Your task to perform on an android device: change the clock display to analog Image 0: 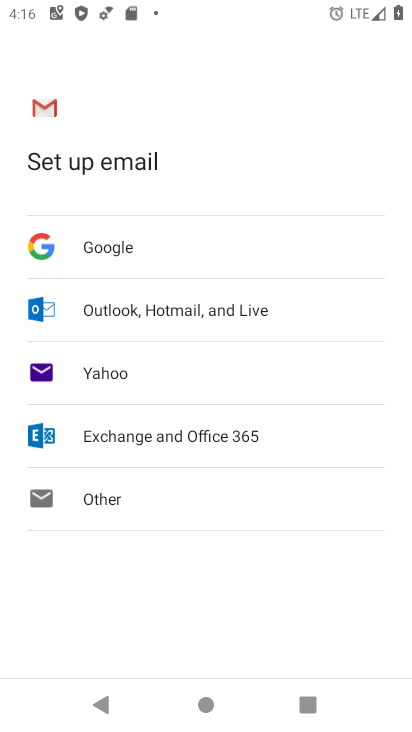
Step 0: press home button
Your task to perform on an android device: change the clock display to analog Image 1: 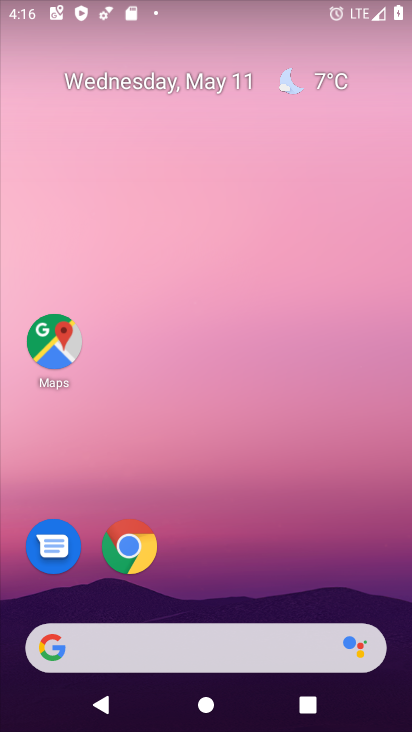
Step 1: drag from (311, 645) to (395, 258)
Your task to perform on an android device: change the clock display to analog Image 2: 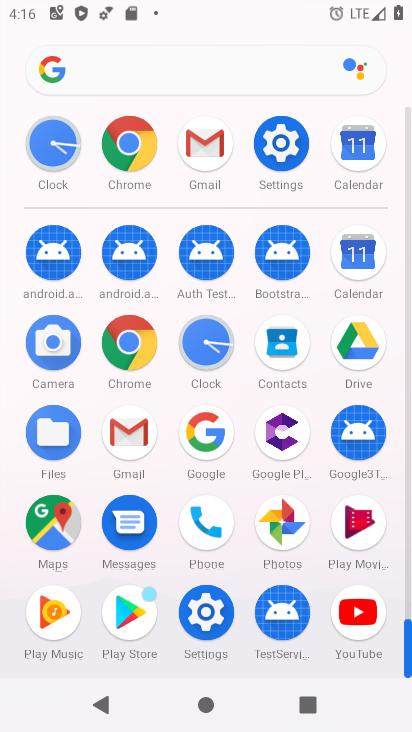
Step 2: click (287, 157)
Your task to perform on an android device: change the clock display to analog Image 3: 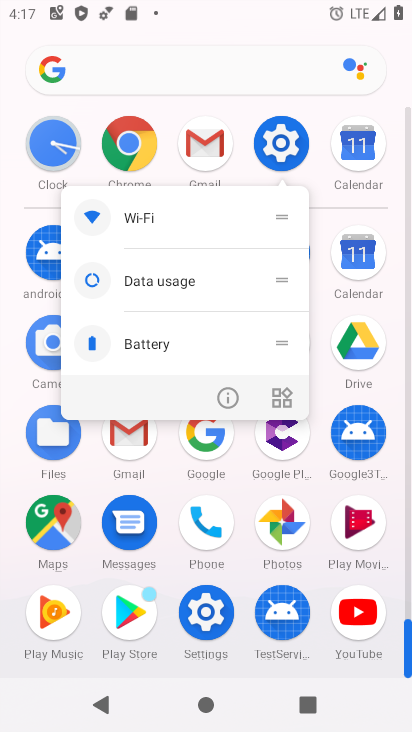
Step 3: click (291, 147)
Your task to perform on an android device: change the clock display to analog Image 4: 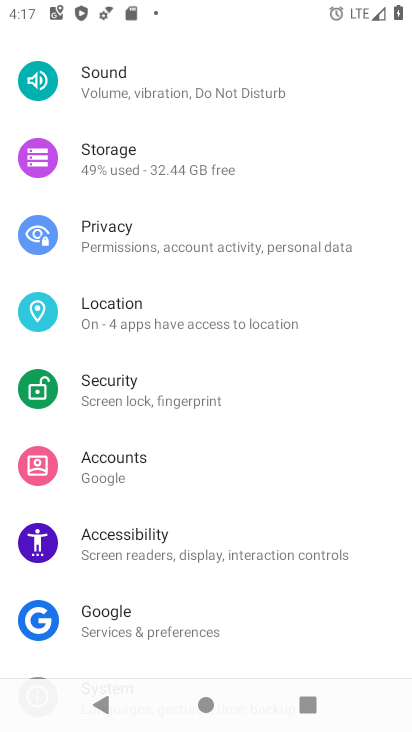
Step 4: press home button
Your task to perform on an android device: change the clock display to analog Image 5: 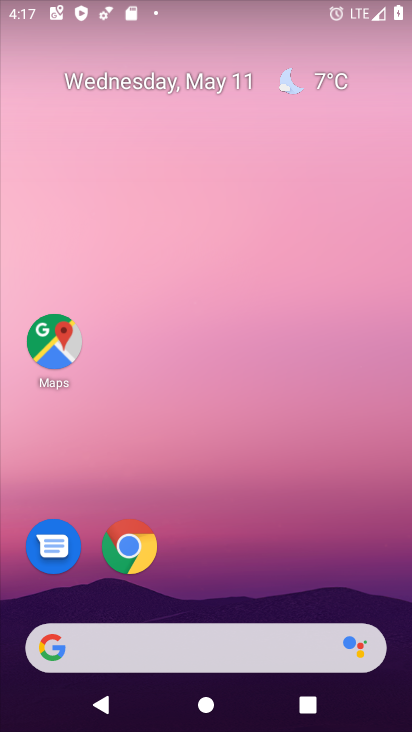
Step 5: drag from (282, 601) to (391, 0)
Your task to perform on an android device: change the clock display to analog Image 6: 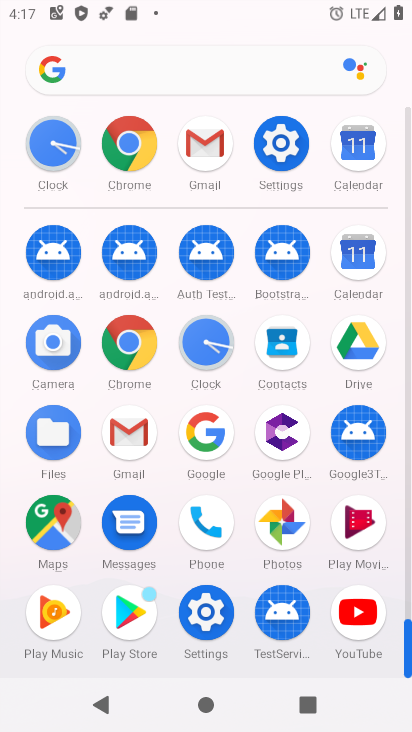
Step 6: click (209, 340)
Your task to perform on an android device: change the clock display to analog Image 7: 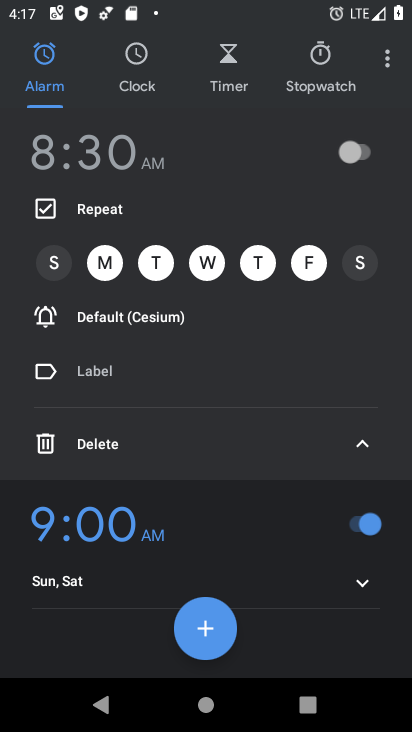
Step 7: click (390, 65)
Your task to perform on an android device: change the clock display to analog Image 8: 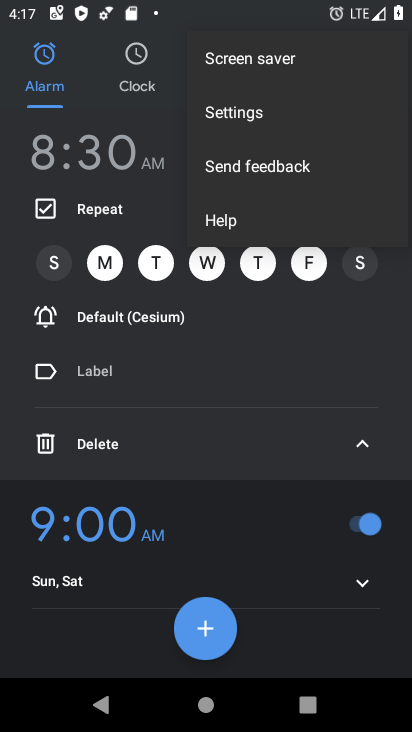
Step 8: click (307, 110)
Your task to perform on an android device: change the clock display to analog Image 9: 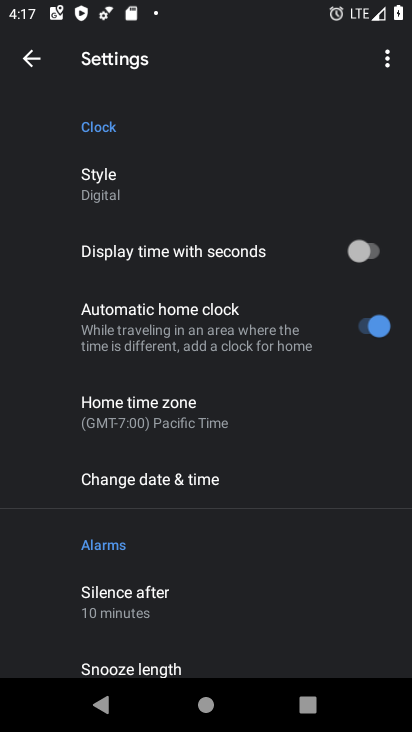
Step 9: task complete